Your task to perform on an android device: Open location settings Image 0: 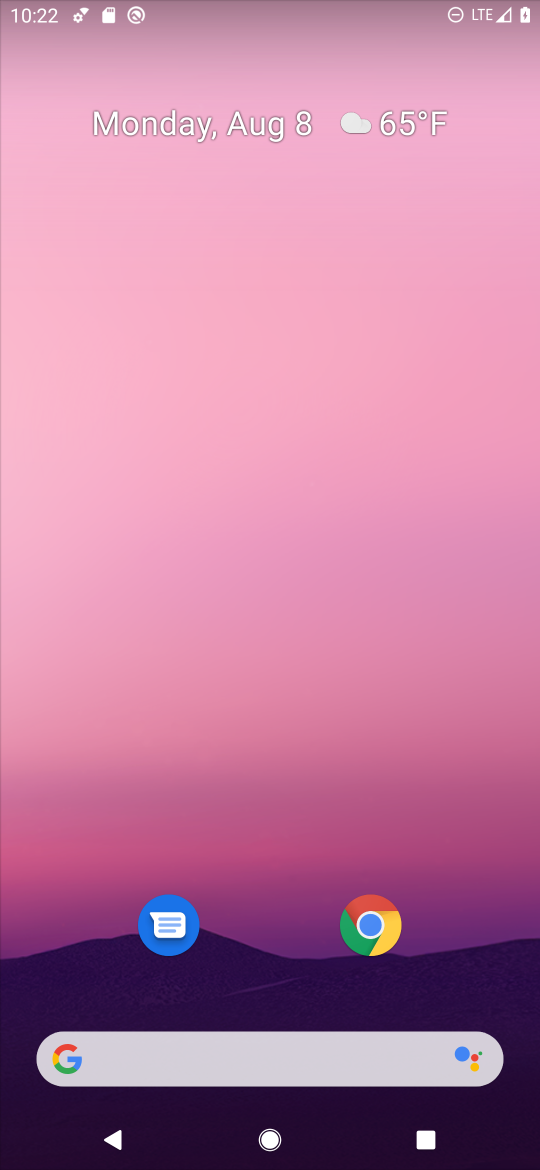
Step 0: drag from (258, 766) to (293, 142)
Your task to perform on an android device: Open location settings Image 1: 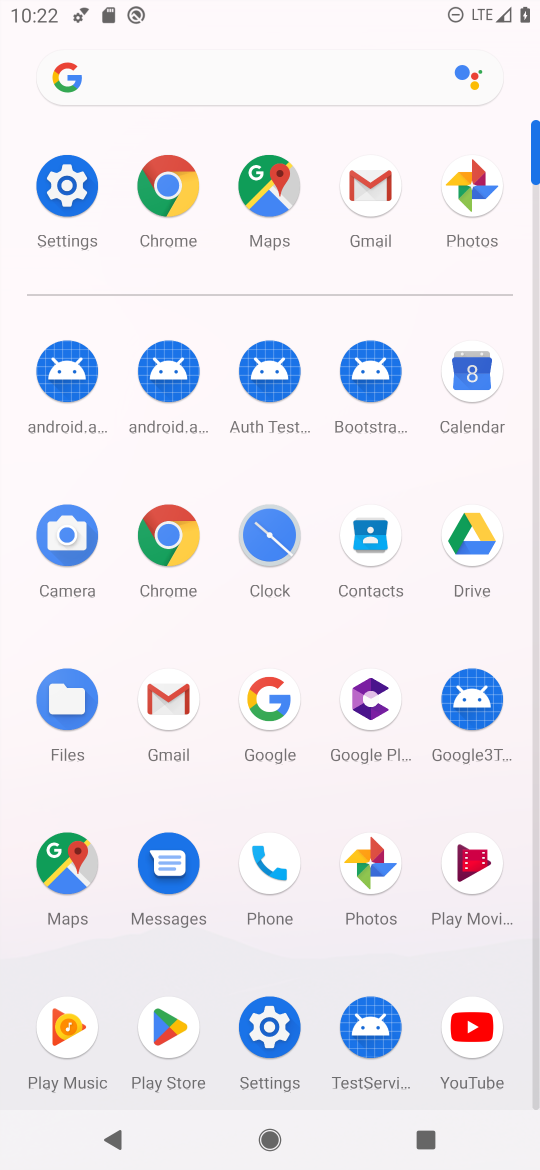
Step 1: click (281, 1035)
Your task to perform on an android device: Open location settings Image 2: 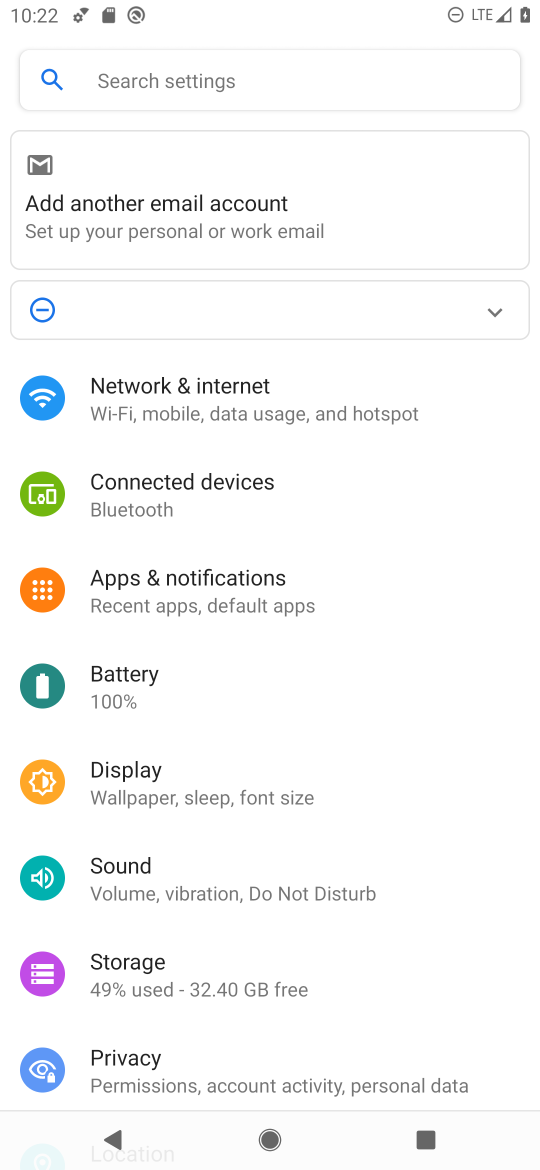
Step 2: drag from (372, 1004) to (370, 409)
Your task to perform on an android device: Open location settings Image 3: 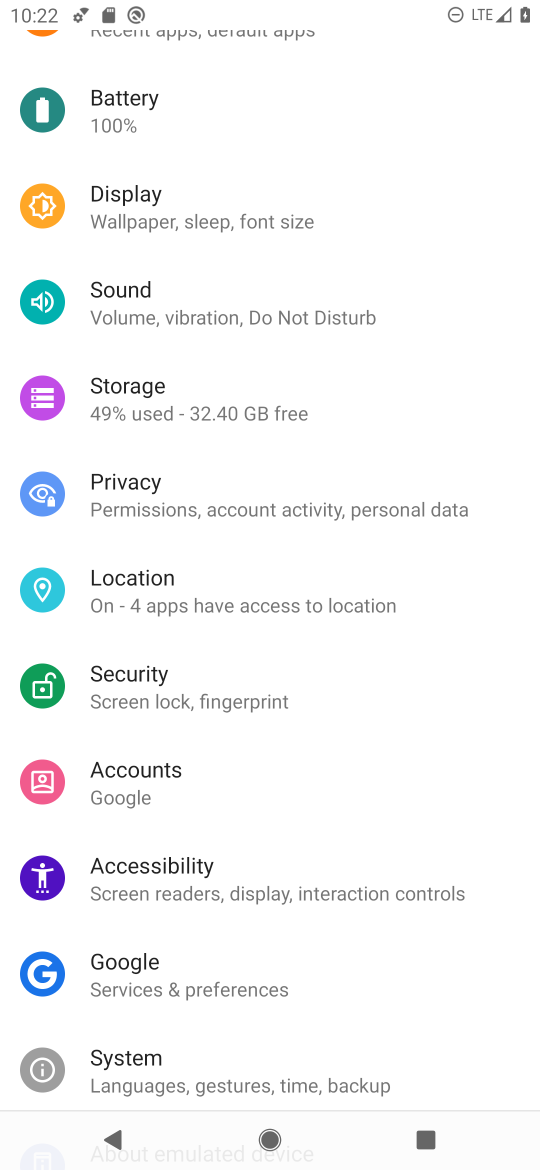
Step 3: click (157, 586)
Your task to perform on an android device: Open location settings Image 4: 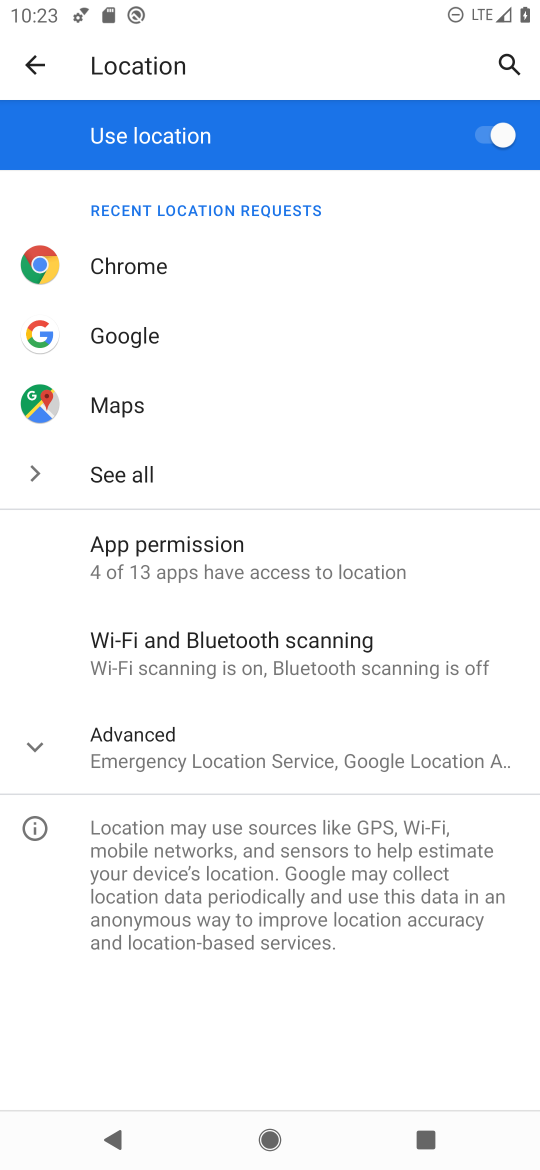
Step 4: task complete